Your task to perform on an android device: add a label to a message in the gmail app Image 0: 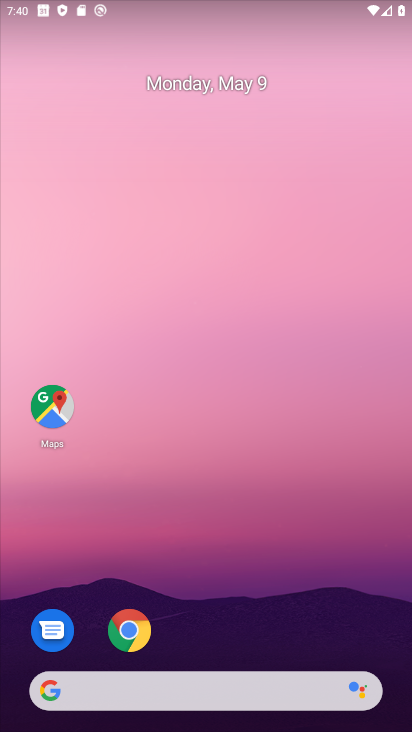
Step 0: drag from (302, 620) to (295, 260)
Your task to perform on an android device: add a label to a message in the gmail app Image 1: 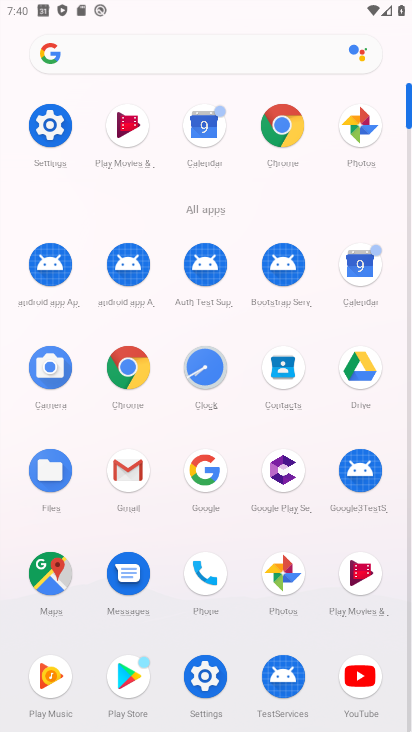
Step 1: click (122, 485)
Your task to perform on an android device: add a label to a message in the gmail app Image 2: 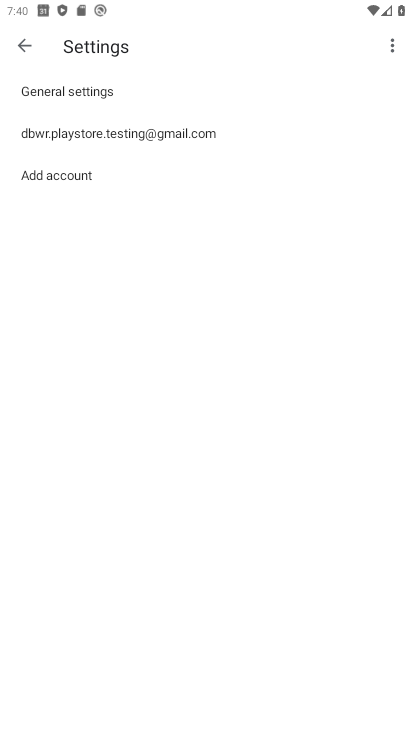
Step 2: click (20, 42)
Your task to perform on an android device: add a label to a message in the gmail app Image 3: 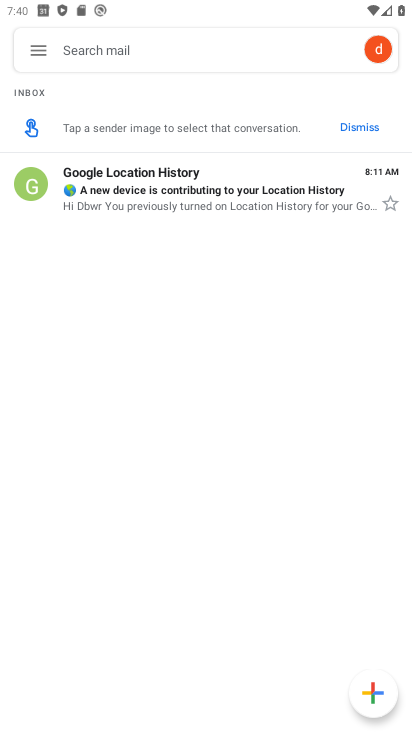
Step 3: click (385, 207)
Your task to perform on an android device: add a label to a message in the gmail app Image 4: 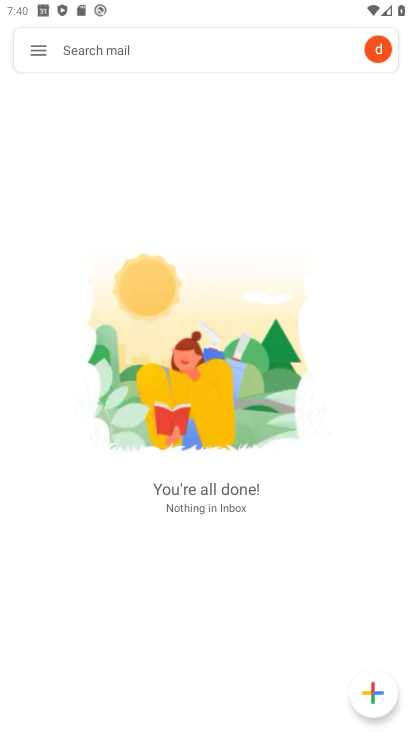
Step 4: task complete